Your task to perform on an android device: check android version Image 0: 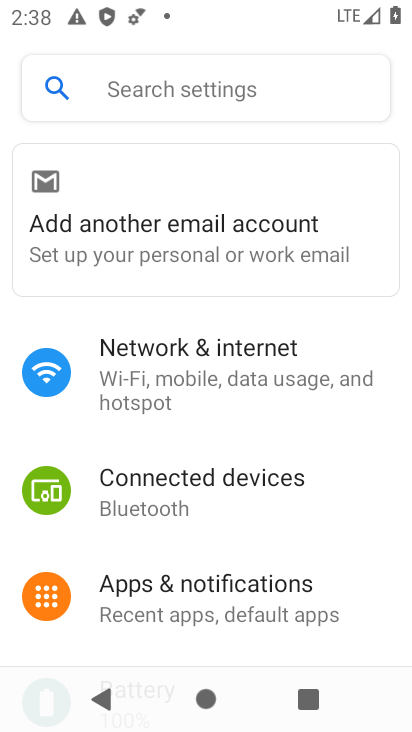
Step 0: drag from (200, 519) to (266, 105)
Your task to perform on an android device: check android version Image 1: 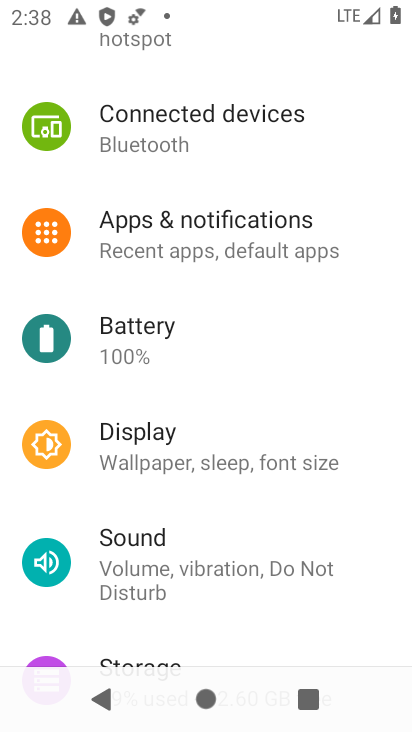
Step 1: drag from (238, 617) to (264, 265)
Your task to perform on an android device: check android version Image 2: 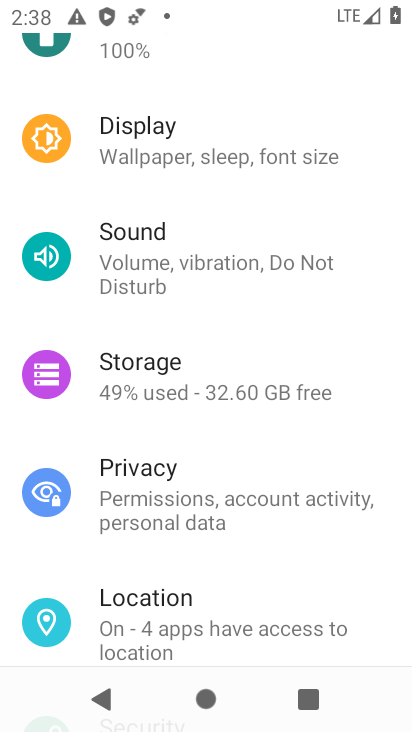
Step 2: drag from (233, 583) to (280, 113)
Your task to perform on an android device: check android version Image 3: 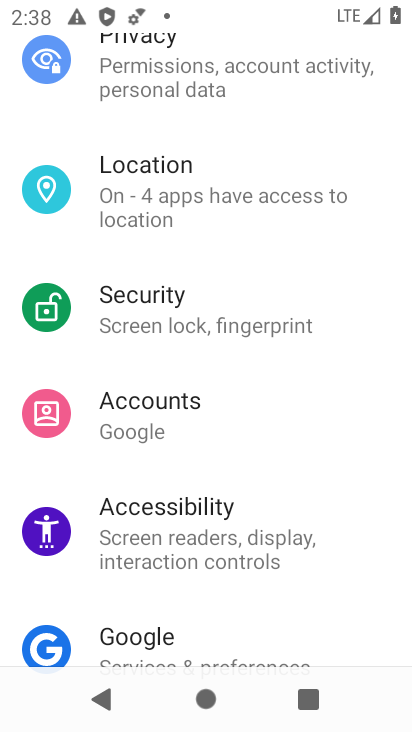
Step 3: drag from (237, 593) to (253, 130)
Your task to perform on an android device: check android version Image 4: 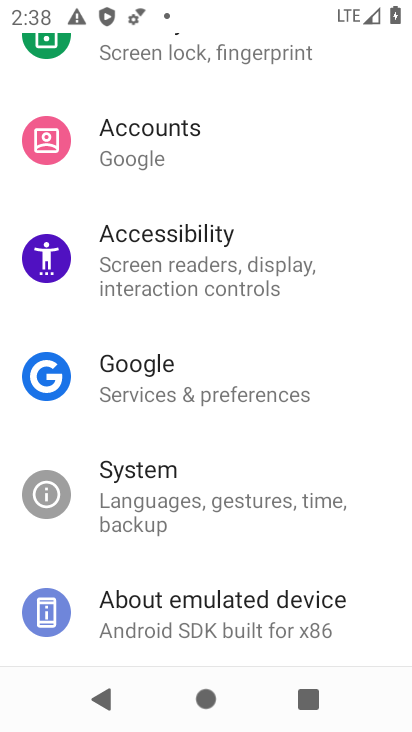
Step 4: click (190, 623)
Your task to perform on an android device: check android version Image 5: 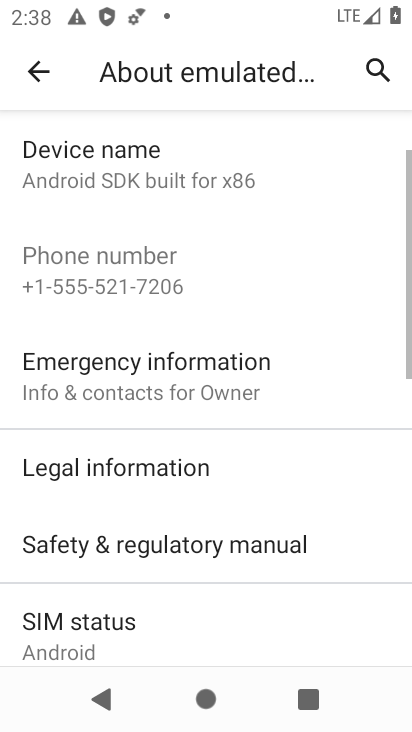
Step 5: drag from (179, 543) to (191, 366)
Your task to perform on an android device: check android version Image 6: 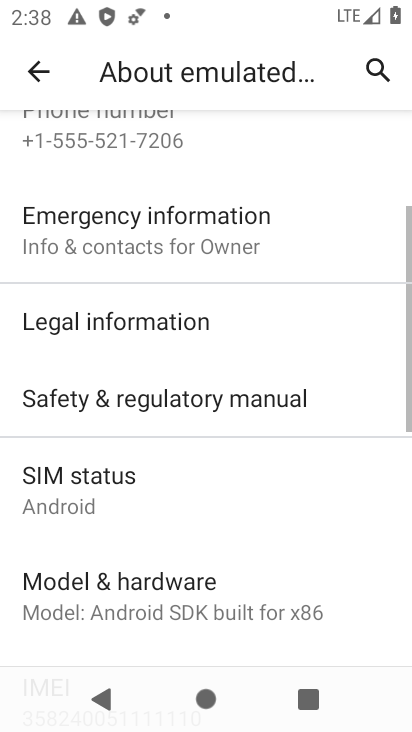
Step 6: drag from (189, 545) to (194, 393)
Your task to perform on an android device: check android version Image 7: 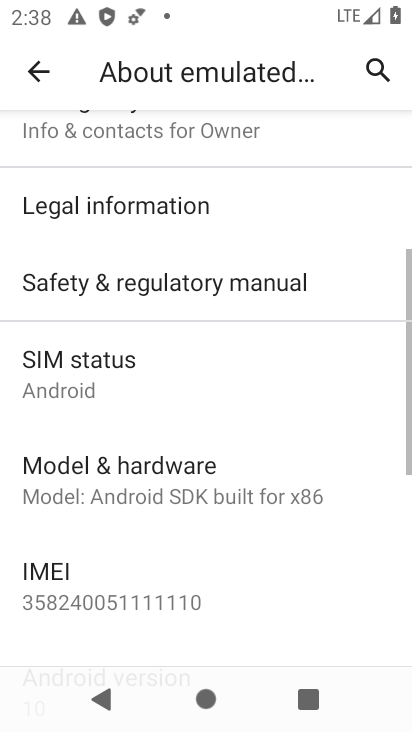
Step 7: drag from (179, 425) to (202, 149)
Your task to perform on an android device: check android version Image 8: 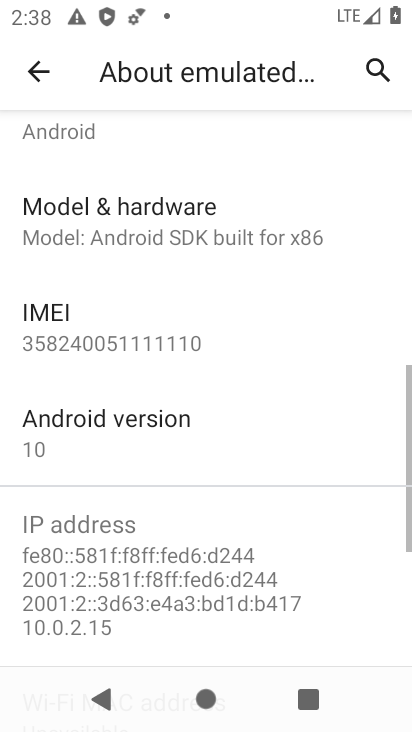
Step 8: click (134, 430)
Your task to perform on an android device: check android version Image 9: 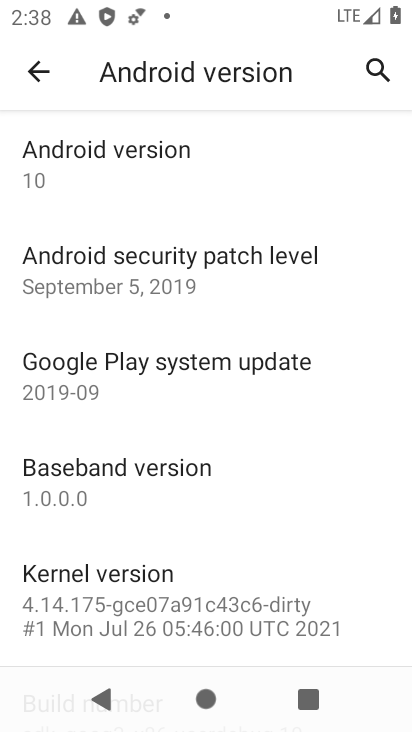
Step 9: task complete